Your task to perform on an android device: Search for seafood restaurants on Google Maps Image 0: 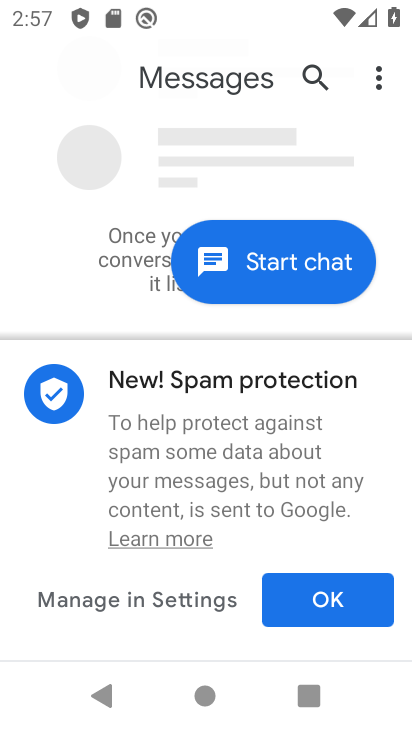
Step 0: press back button
Your task to perform on an android device: Search for seafood restaurants on Google Maps Image 1: 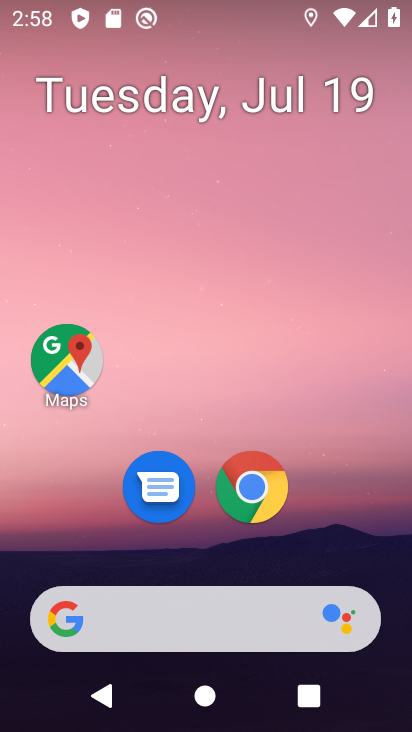
Step 1: click (61, 333)
Your task to perform on an android device: Search for seafood restaurants on Google Maps Image 2: 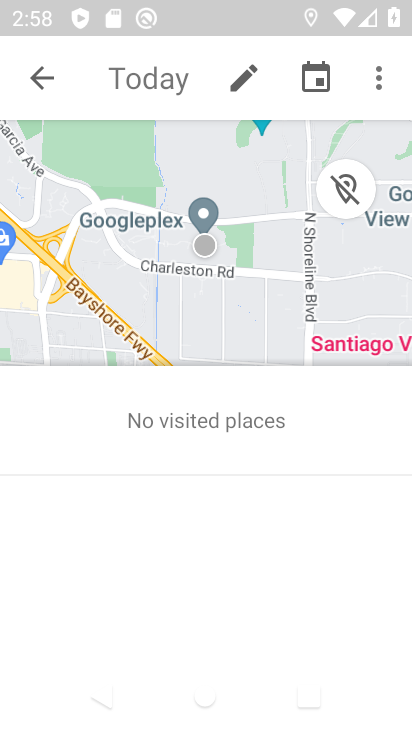
Step 2: click (43, 70)
Your task to perform on an android device: Search for seafood restaurants on Google Maps Image 3: 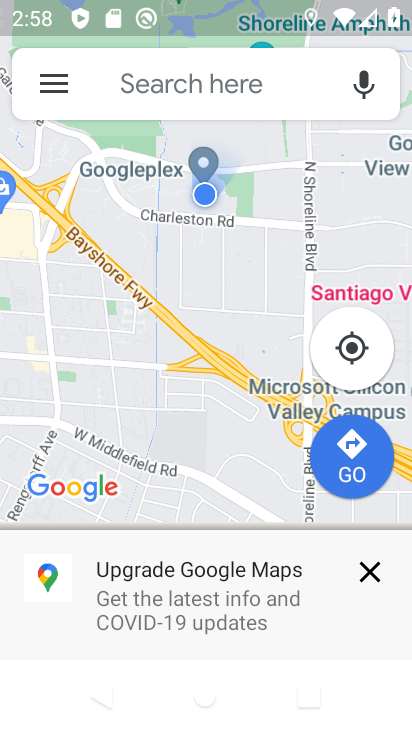
Step 3: click (188, 91)
Your task to perform on an android device: Search for seafood restaurants on Google Maps Image 4: 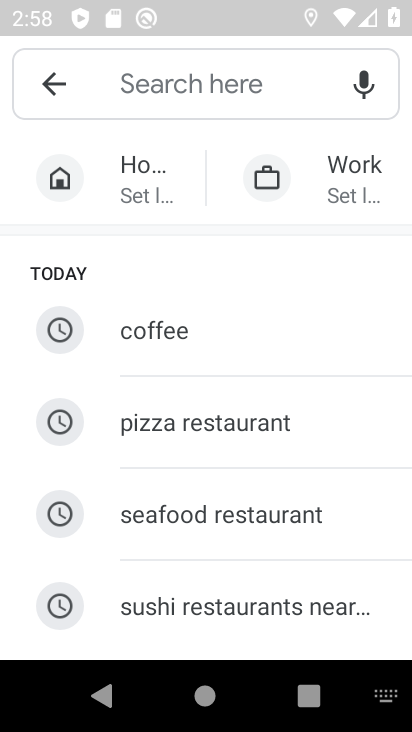
Step 4: click (159, 525)
Your task to perform on an android device: Search for seafood restaurants on Google Maps Image 5: 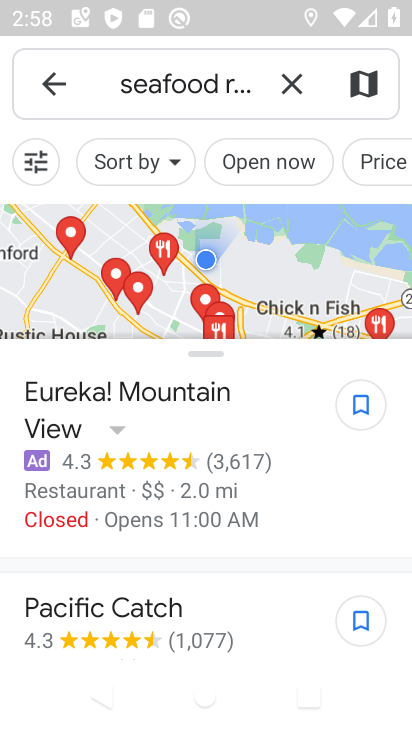
Step 5: task complete